Your task to perform on an android device: Search for pizza restaurants on Maps Image 0: 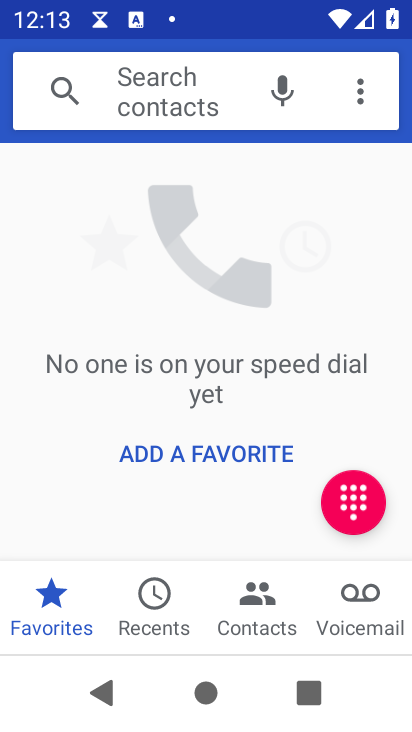
Step 0: press home button
Your task to perform on an android device: Search for pizza restaurants on Maps Image 1: 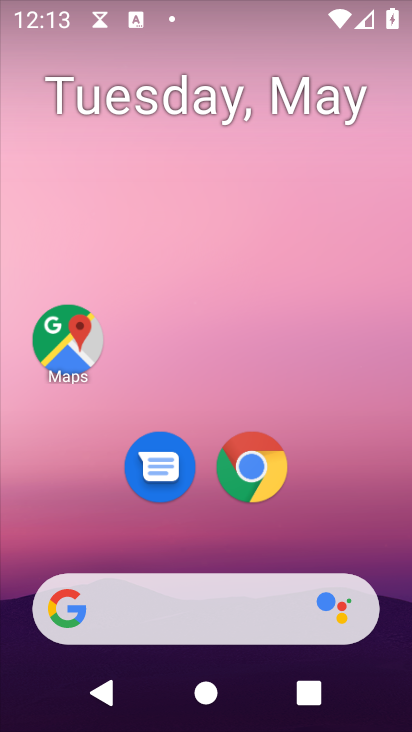
Step 1: click (59, 363)
Your task to perform on an android device: Search for pizza restaurants on Maps Image 2: 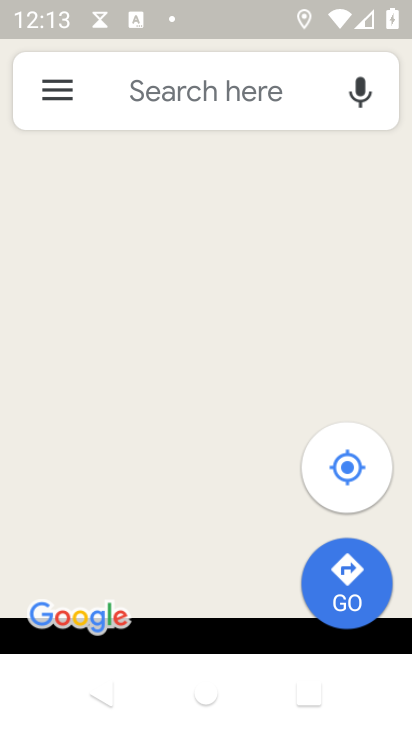
Step 2: click (209, 83)
Your task to perform on an android device: Search for pizza restaurants on Maps Image 3: 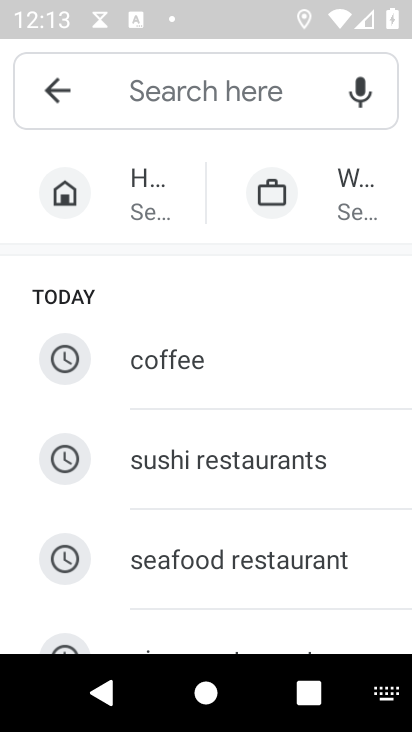
Step 3: type "pizza restaurants"
Your task to perform on an android device: Search for pizza restaurants on Maps Image 4: 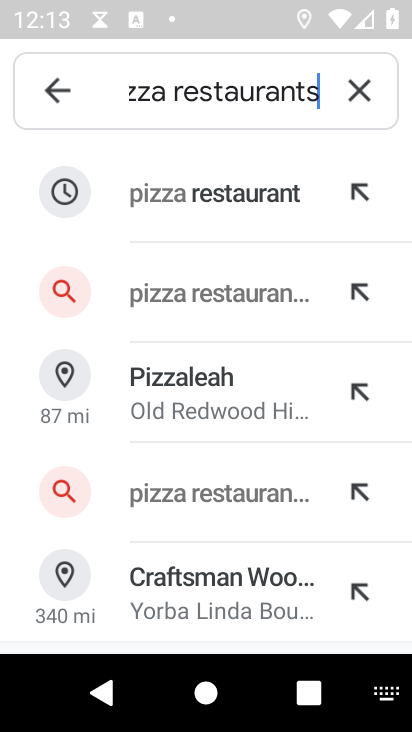
Step 4: click (235, 201)
Your task to perform on an android device: Search for pizza restaurants on Maps Image 5: 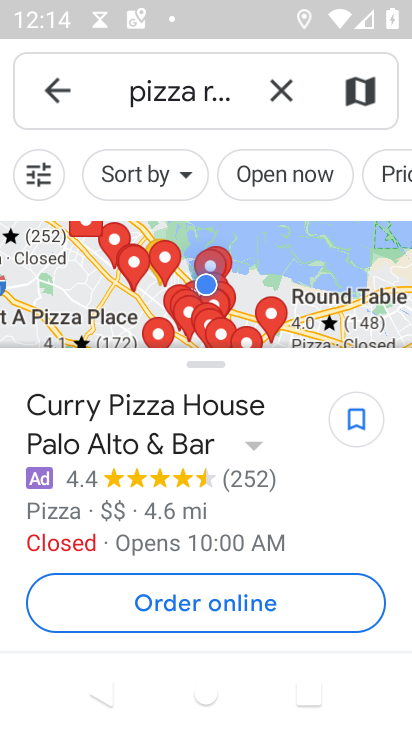
Step 5: task complete